Your task to perform on an android device: Search for sushi restaurants on Maps Image 0: 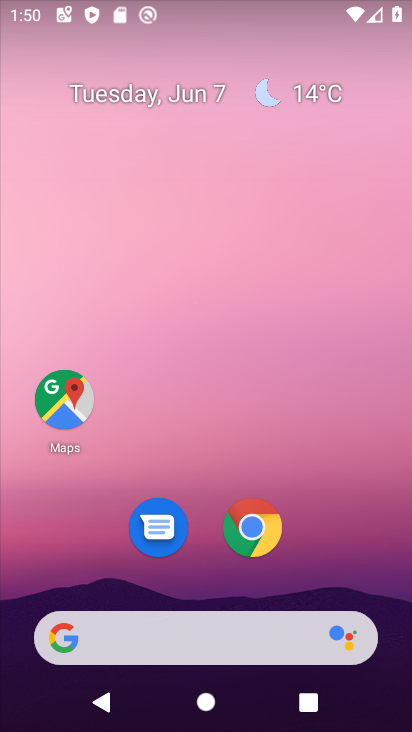
Step 0: click (69, 387)
Your task to perform on an android device: Search for sushi restaurants on Maps Image 1: 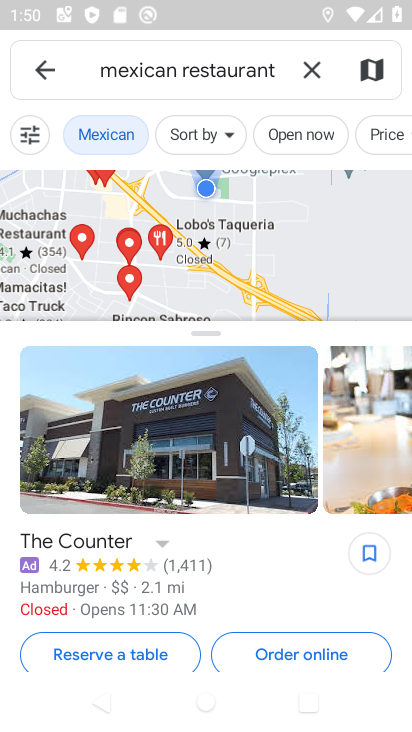
Step 1: click (313, 60)
Your task to perform on an android device: Search for sushi restaurants on Maps Image 2: 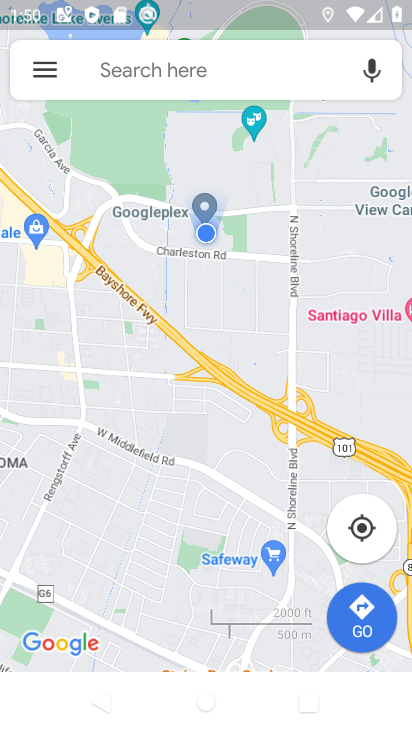
Step 2: click (159, 76)
Your task to perform on an android device: Search for sushi restaurants on Maps Image 3: 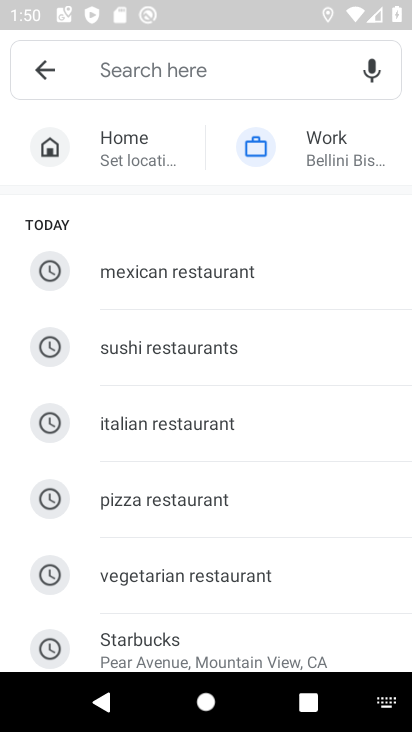
Step 3: click (258, 357)
Your task to perform on an android device: Search for sushi restaurants on Maps Image 4: 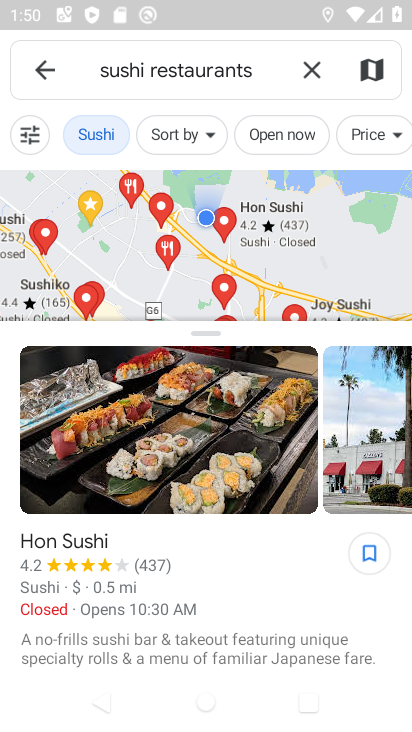
Step 4: task complete